Your task to perform on an android device: change timer sound Image 0: 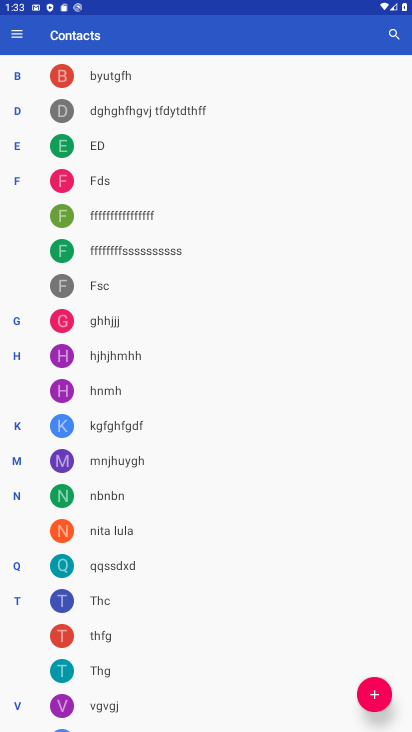
Step 0: press home button
Your task to perform on an android device: change timer sound Image 1: 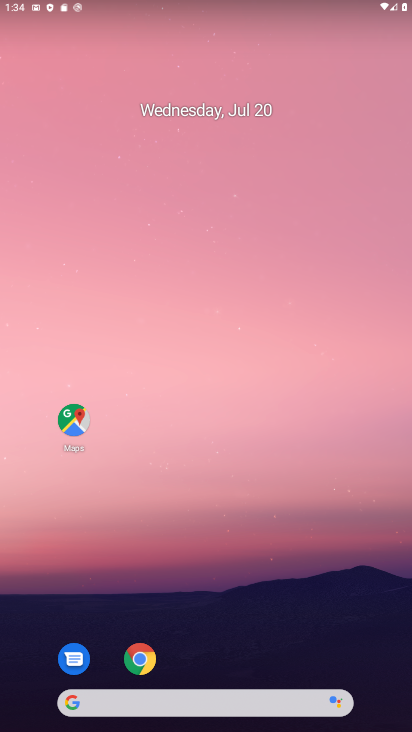
Step 1: click (237, 494)
Your task to perform on an android device: change timer sound Image 2: 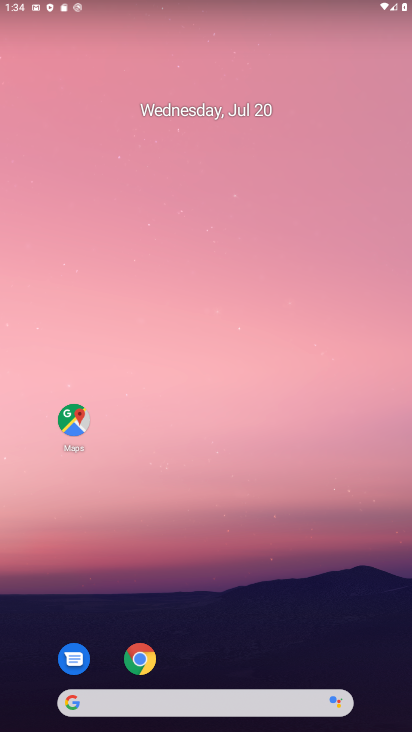
Step 2: drag from (237, 494) to (222, 44)
Your task to perform on an android device: change timer sound Image 3: 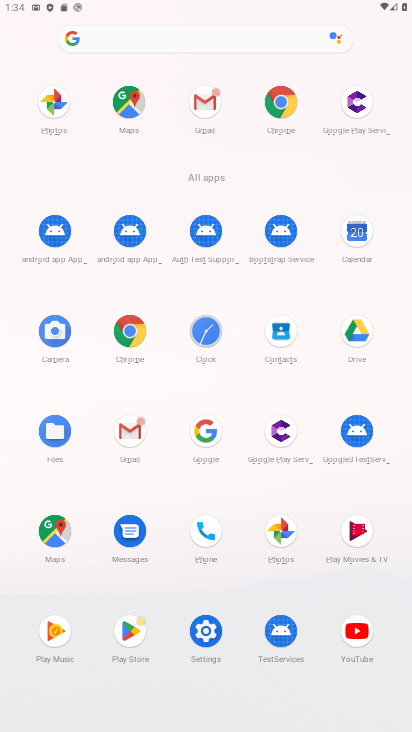
Step 3: click (196, 330)
Your task to perform on an android device: change timer sound Image 4: 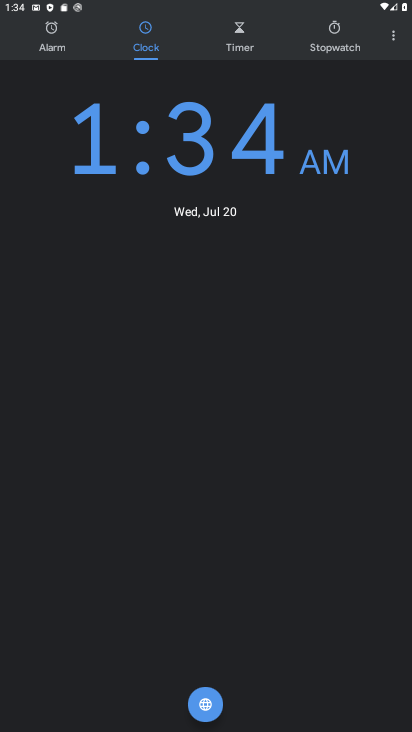
Step 4: click (388, 35)
Your task to perform on an android device: change timer sound Image 5: 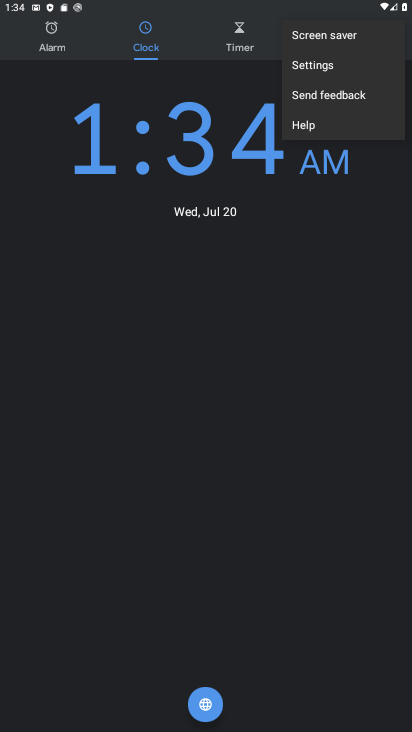
Step 5: click (326, 63)
Your task to perform on an android device: change timer sound Image 6: 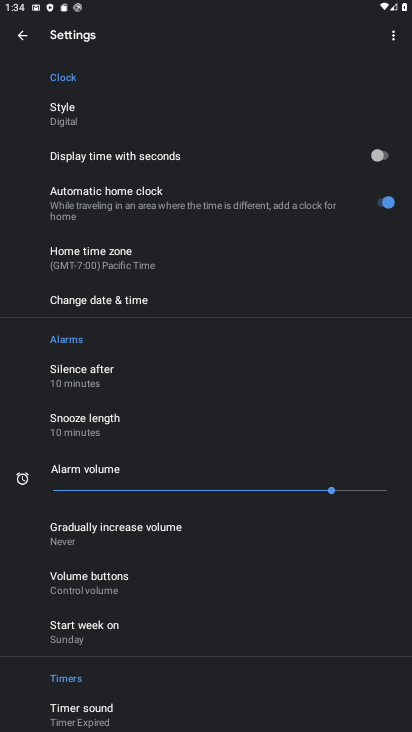
Step 6: click (129, 721)
Your task to perform on an android device: change timer sound Image 7: 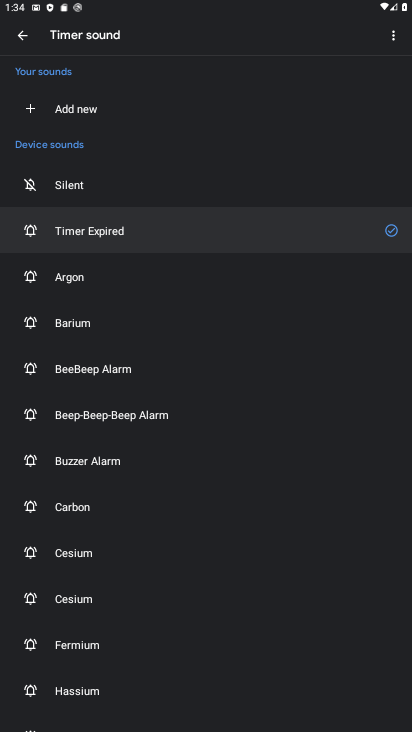
Step 7: click (50, 644)
Your task to perform on an android device: change timer sound Image 8: 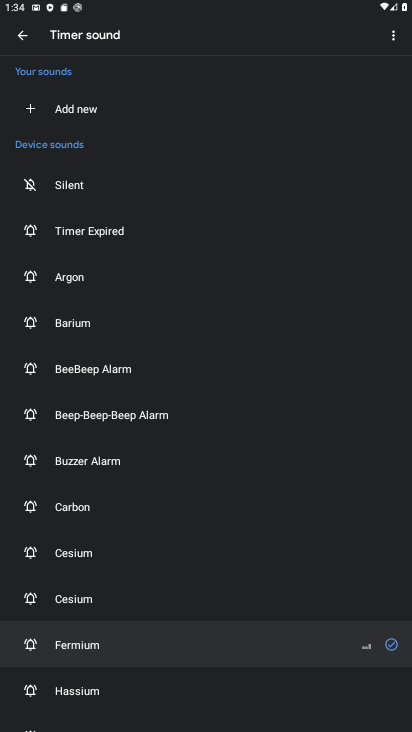
Step 8: task complete